Your task to perform on an android device: Go to display settings Image 0: 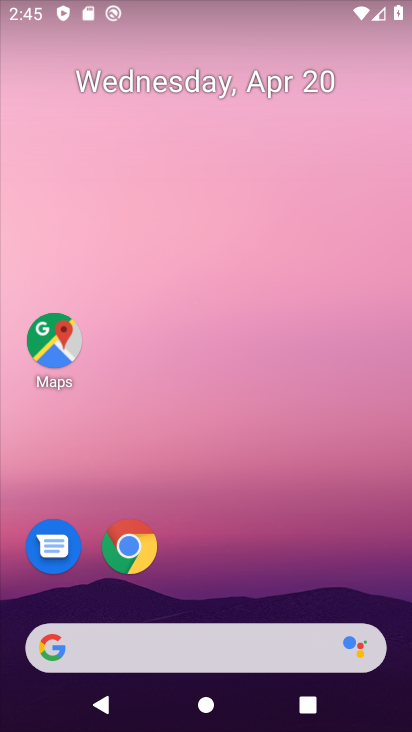
Step 0: drag from (207, 562) to (188, 135)
Your task to perform on an android device: Go to display settings Image 1: 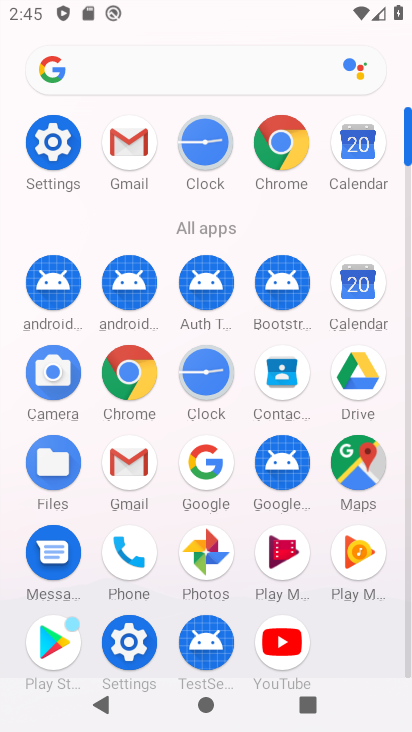
Step 1: click (76, 143)
Your task to perform on an android device: Go to display settings Image 2: 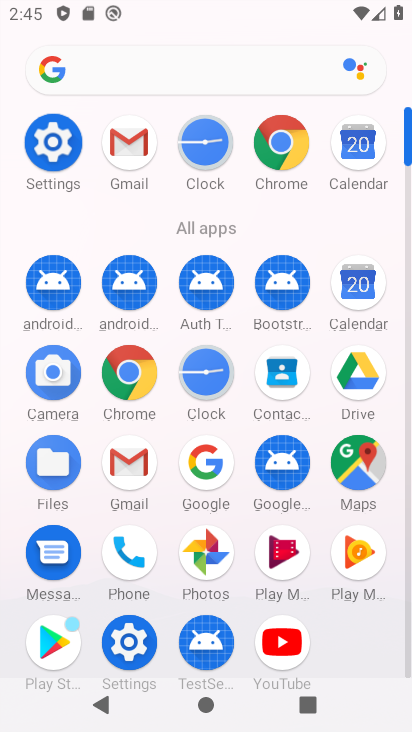
Step 2: click (70, 142)
Your task to perform on an android device: Go to display settings Image 3: 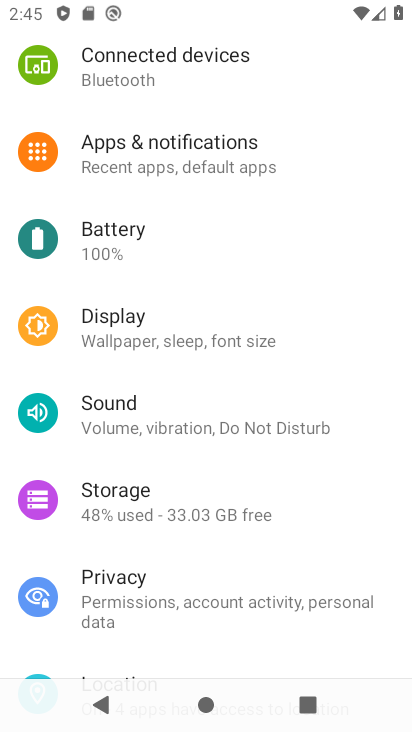
Step 3: click (183, 317)
Your task to perform on an android device: Go to display settings Image 4: 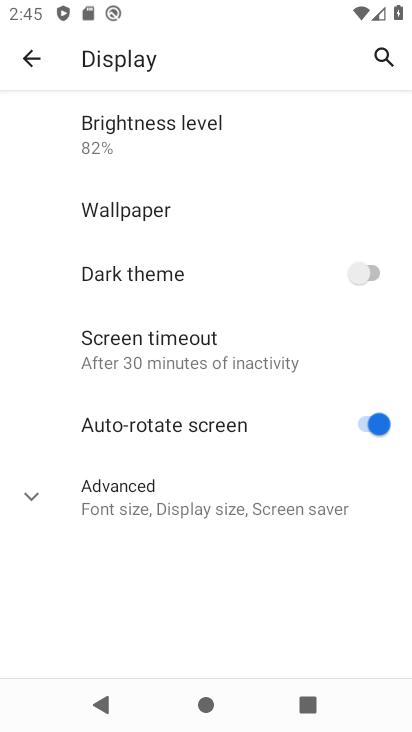
Step 4: task complete